Your task to perform on an android device: Turn on the flashlight Image 0: 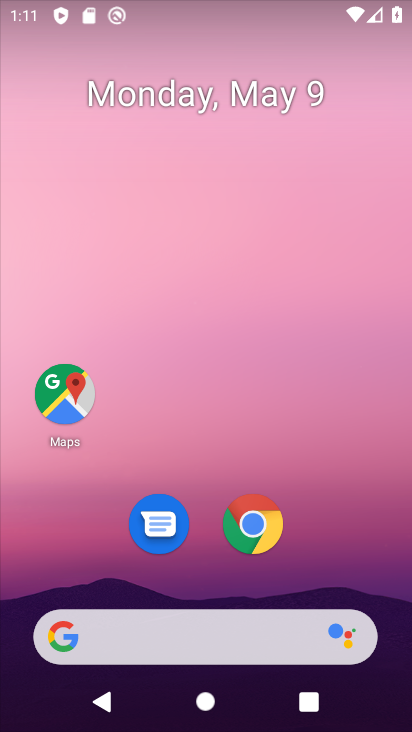
Step 0: drag from (320, 533) to (362, 30)
Your task to perform on an android device: Turn on the flashlight Image 1: 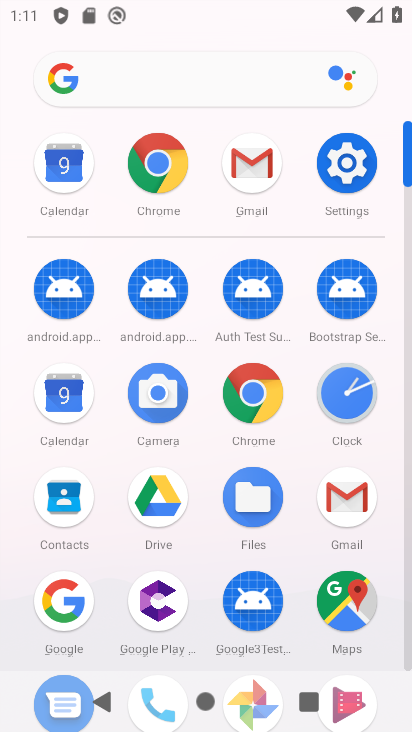
Step 1: click (342, 167)
Your task to perform on an android device: Turn on the flashlight Image 2: 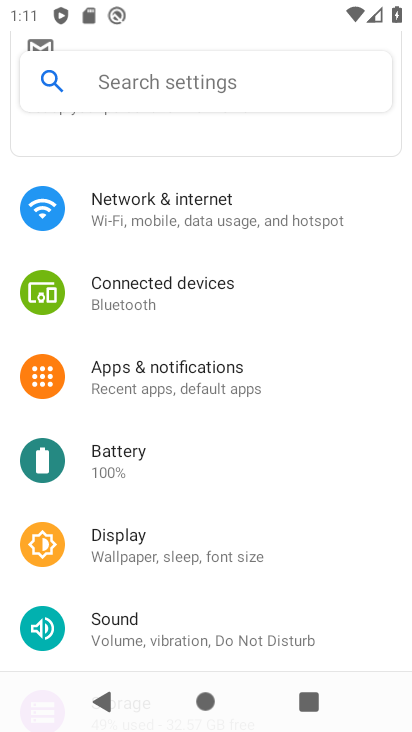
Step 2: click (280, 83)
Your task to perform on an android device: Turn on the flashlight Image 3: 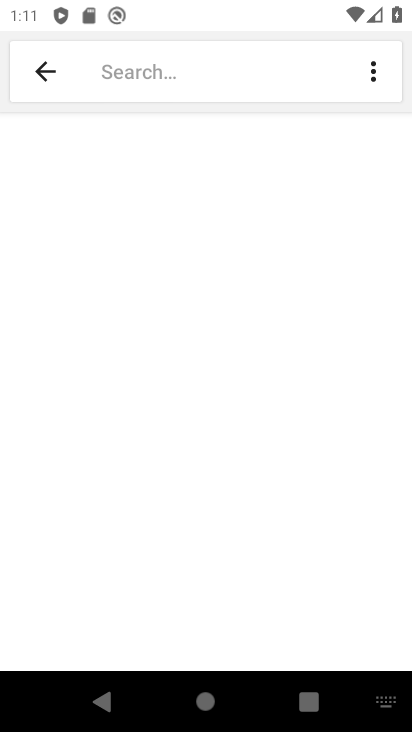
Step 3: type "flashlight"
Your task to perform on an android device: Turn on the flashlight Image 4: 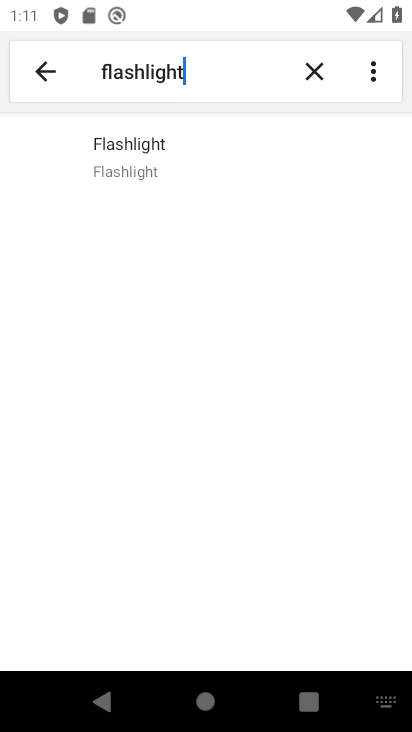
Step 4: click (116, 142)
Your task to perform on an android device: Turn on the flashlight Image 5: 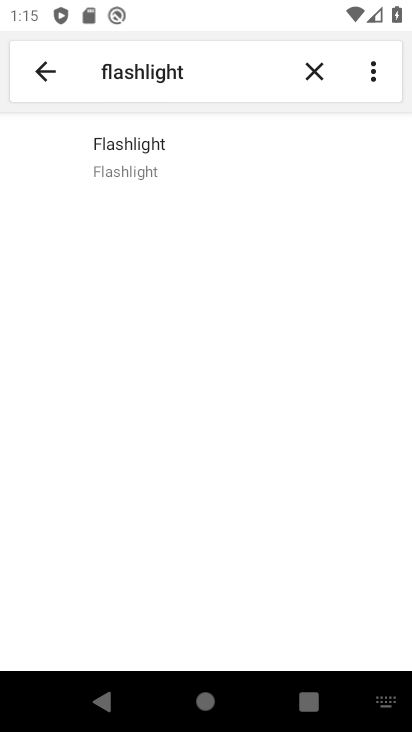
Step 5: task complete